Your task to perform on an android device: Add "bose soundlink mini" to the cart on target.com, then select checkout. Image 0: 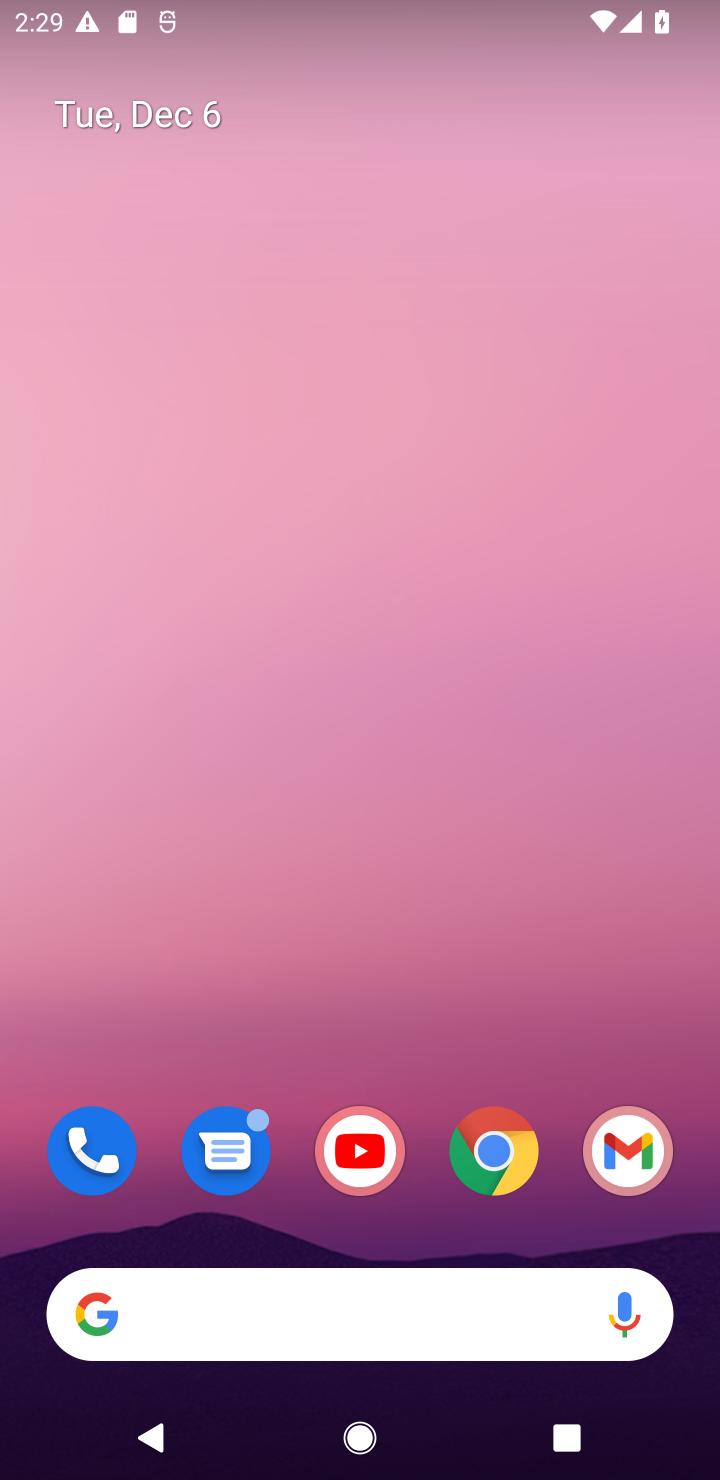
Step 0: click (493, 1161)
Your task to perform on an android device: Add "bose soundlink mini" to the cart on target.com, then select checkout. Image 1: 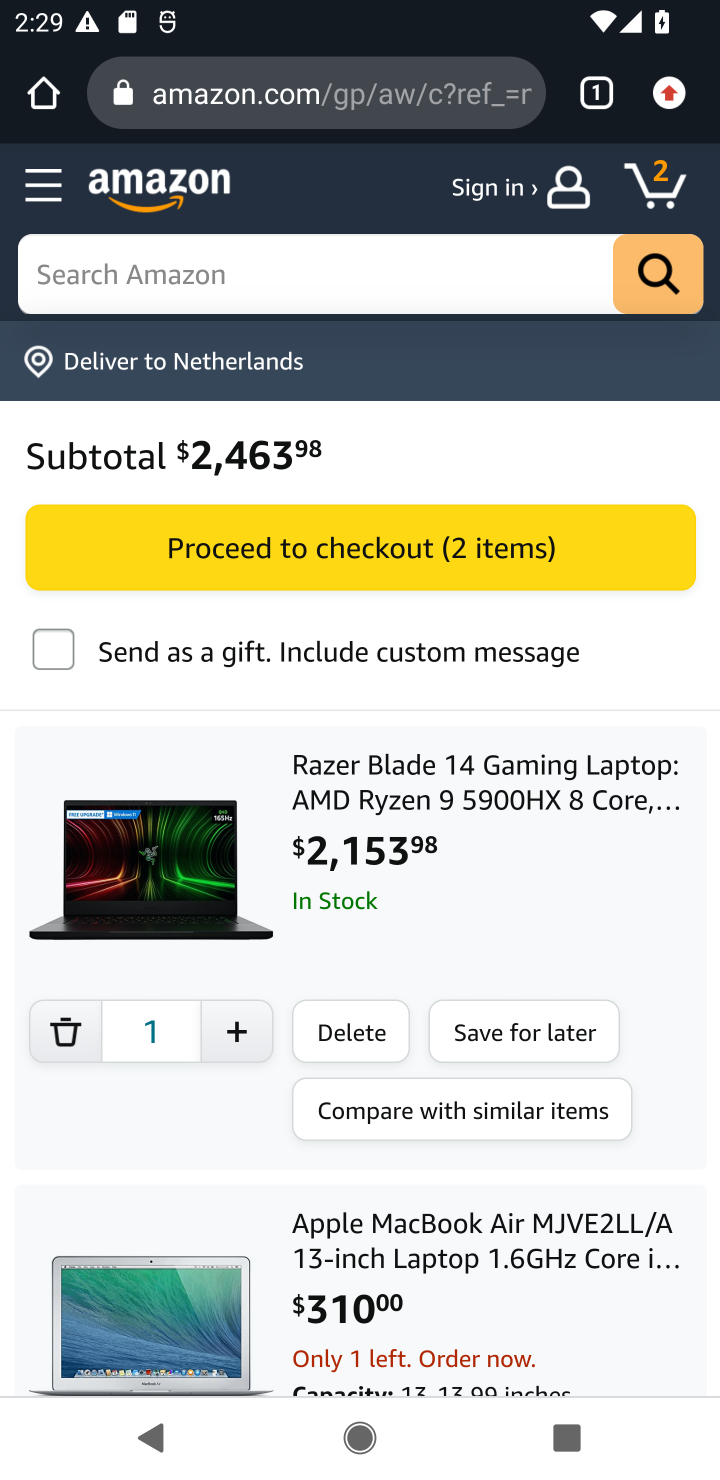
Step 1: click (293, 105)
Your task to perform on an android device: Add "bose soundlink mini" to the cart on target.com, then select checkout. Image 2: 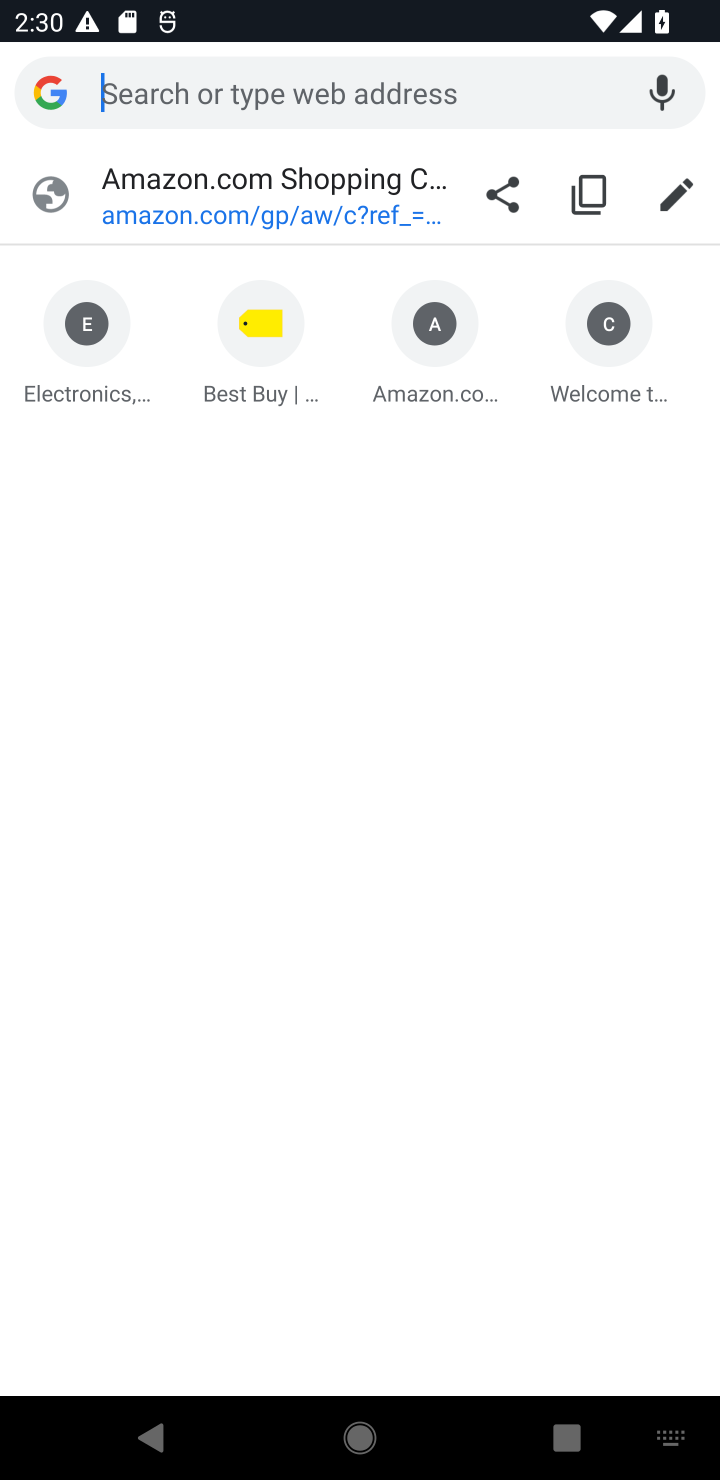
Step 2: type "target.com"
Your task to perform on an android device: Add "bose soundlink mini" to the cart on target.com, then select checkout. Image 3: 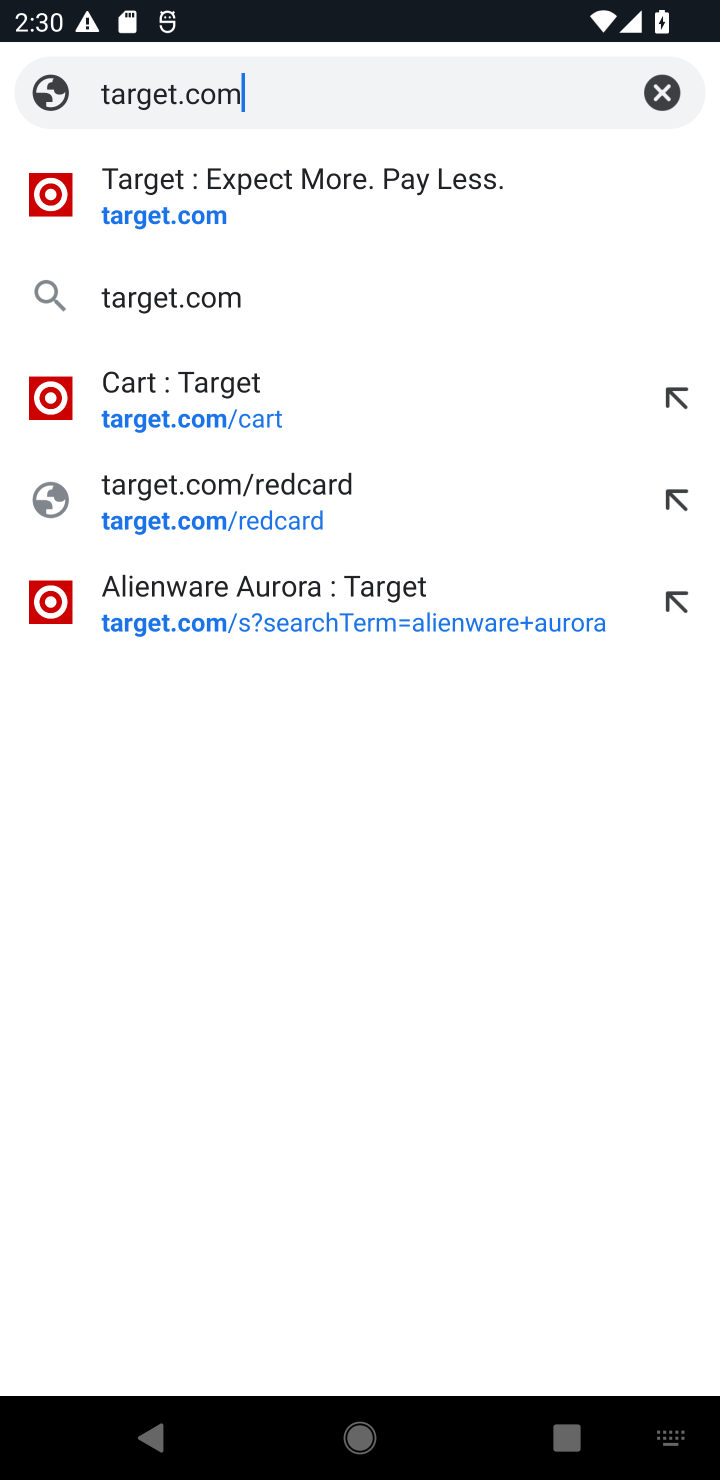
Step 3: click (138, 202)
Your task to perform on an android device: Add "bose soundlink mini" to the cart on target.com, then select checkout. Image 4: 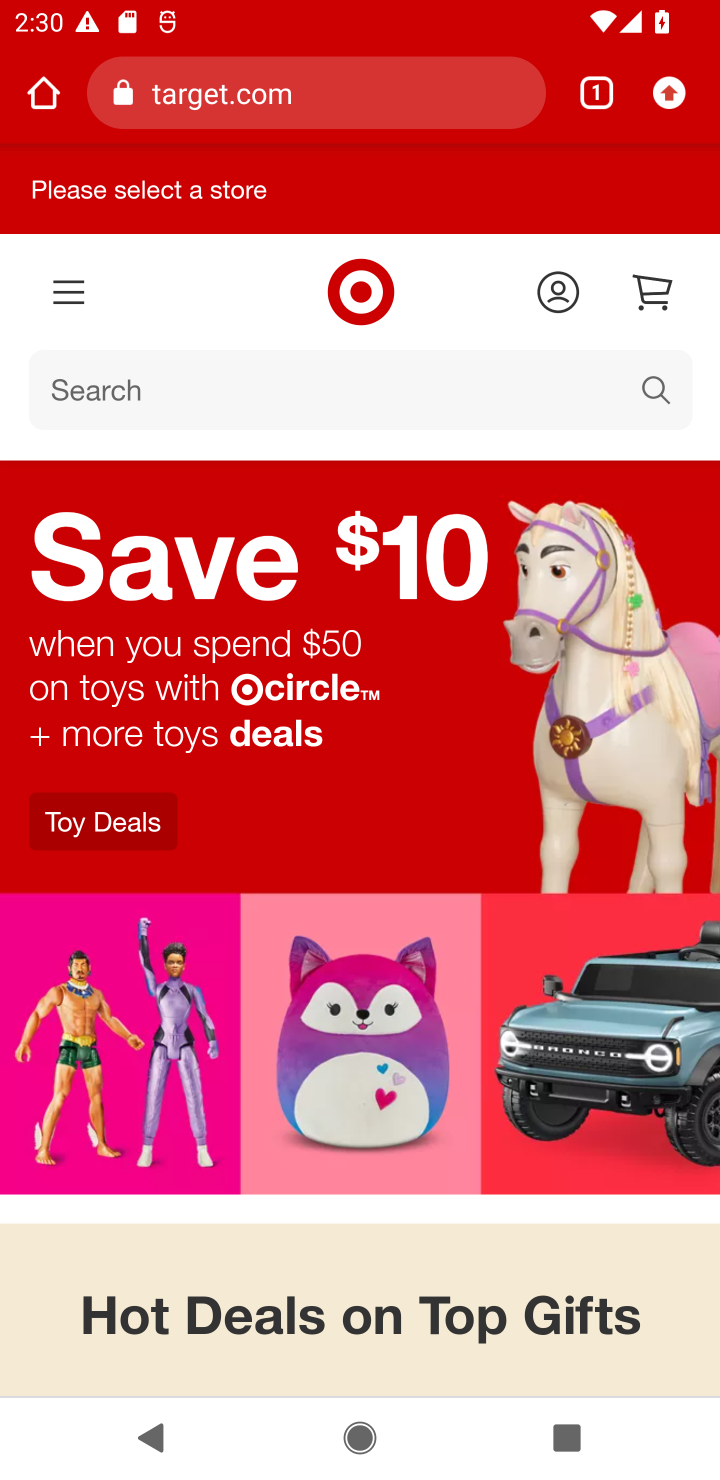
Step 4: click (126, 387)
Your task to perform on an android device: Add "bose soundlink mini" to the cart on target.com, then select checkout. Image 5: 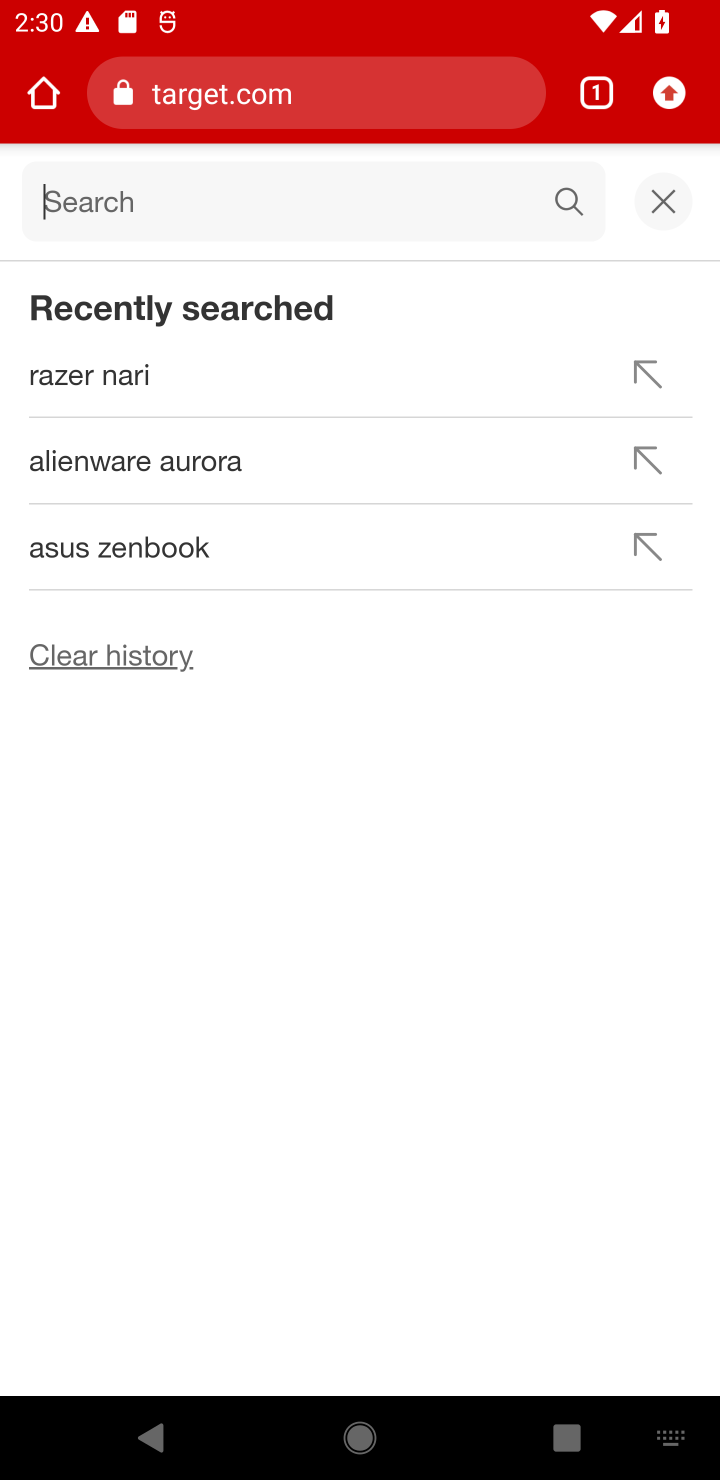
Step 5: type "bose soundlink mini"
Your task to perform on an android device: Add "bose soundlink mini" to the cart on target.com, then select checkout. Image 6: 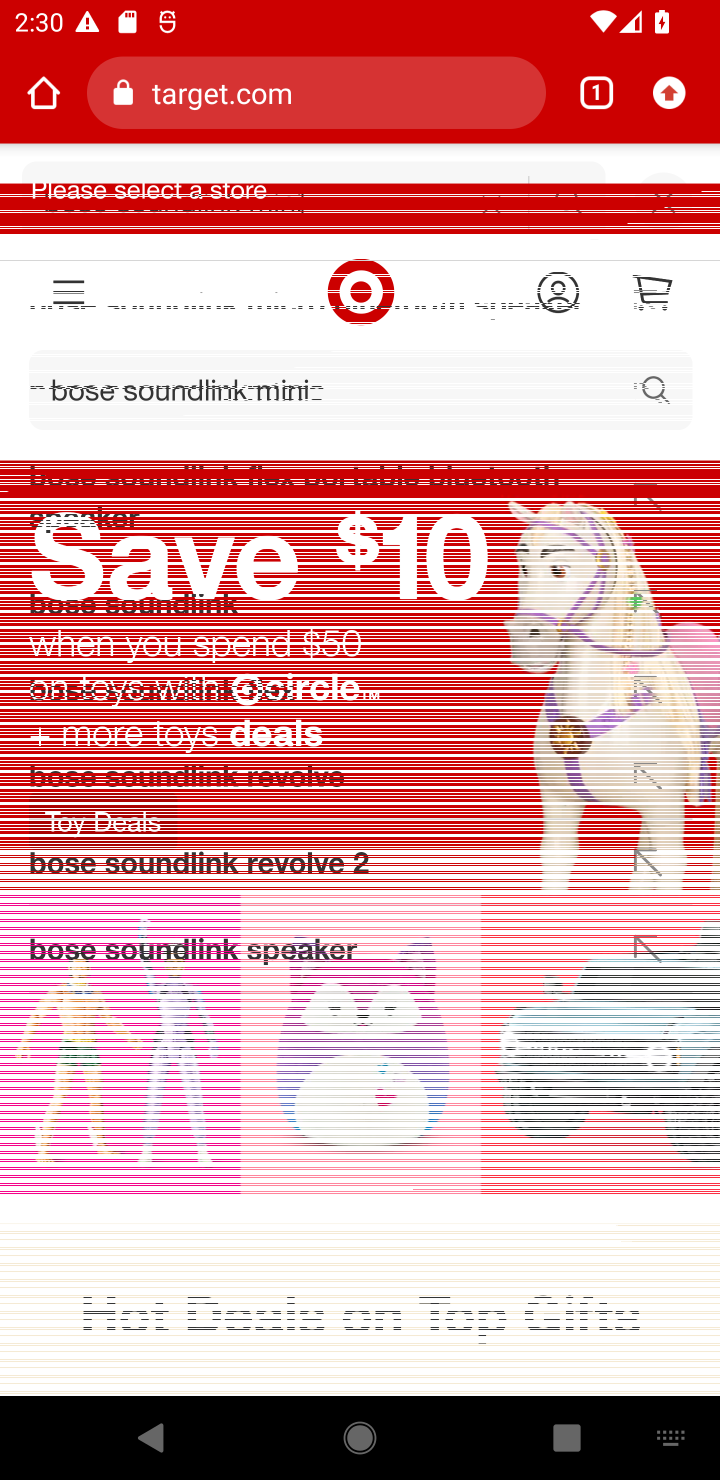
Step 6: click (566, 195)
Your task to perform on an android device: Add "bose soundlink mini" to the cart on target.com, then select checkout. Image 7: 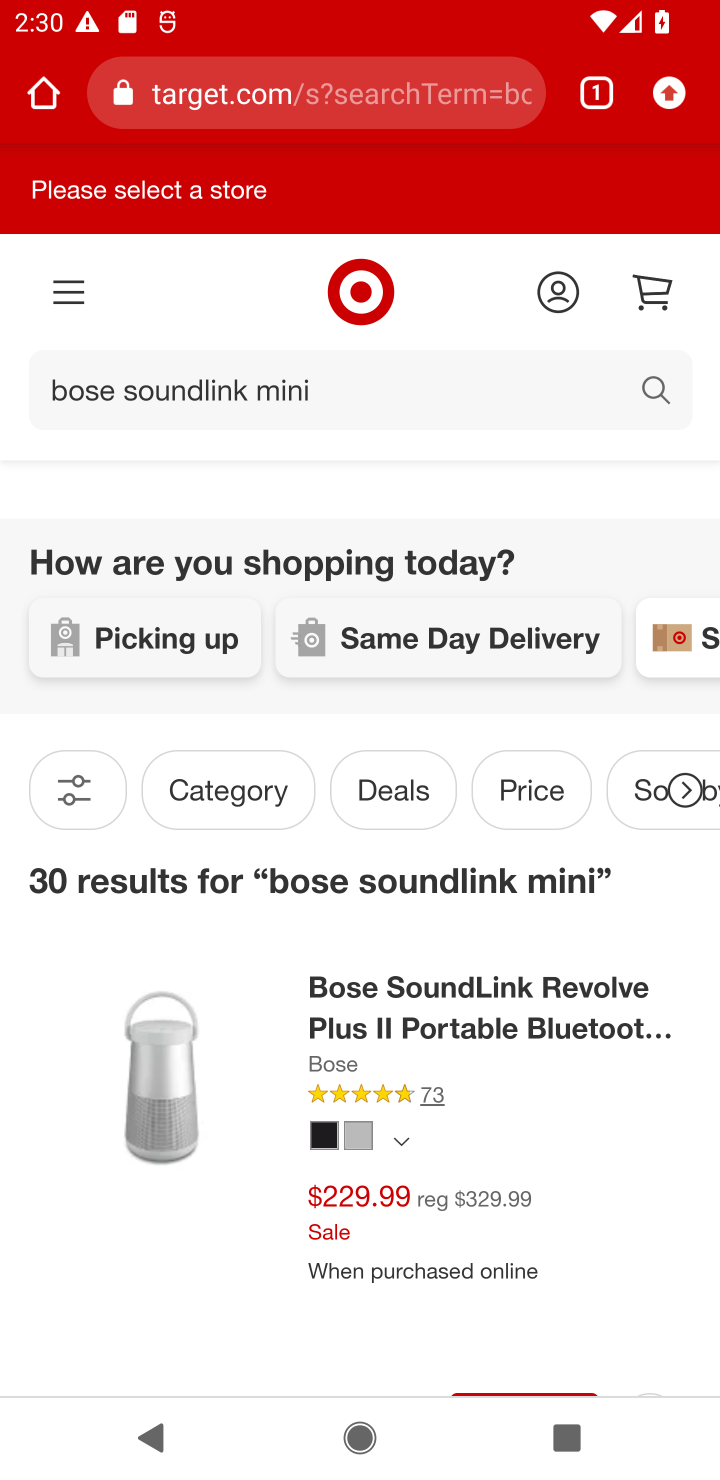
Step 7: task complete